Your task to perform on an android device: open a new tab in the chrome app Image 0: 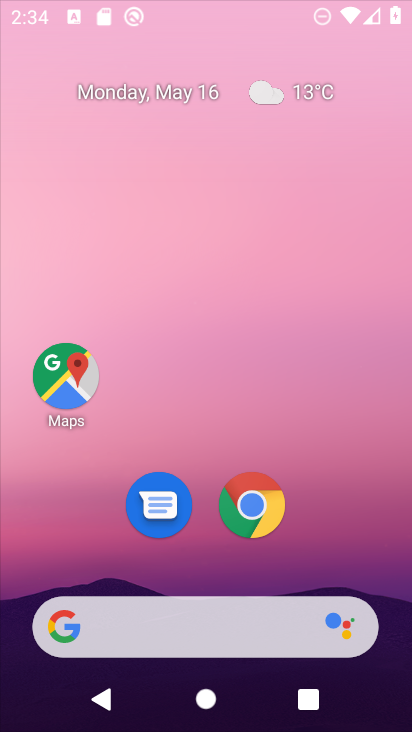
Step 0: drag from (305, 568) to (323, 165)
Your task to perform on an android device: open a new tab in the chrome app Image 1: 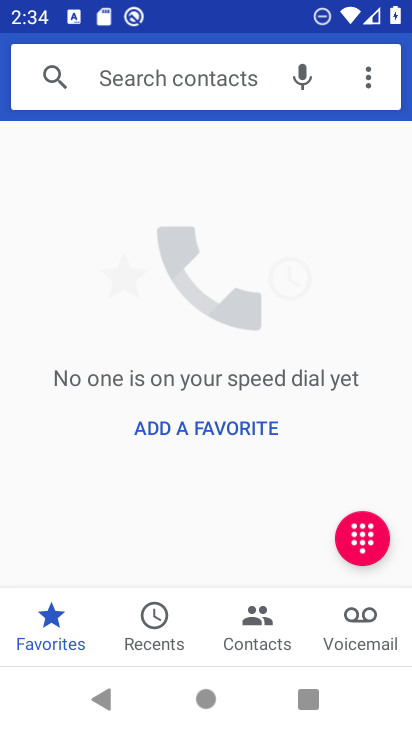
Step 1: press home button
Your task to perform on an android device: open a new tab in the chrome app Image 2: 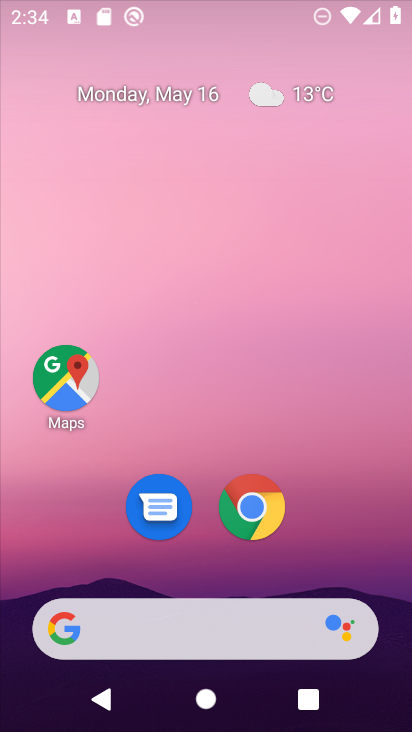
Step 2: drag from (242, 565) to (230, 142)
Your task to perform on an android device: open a new tab in the chrome app Image 3: 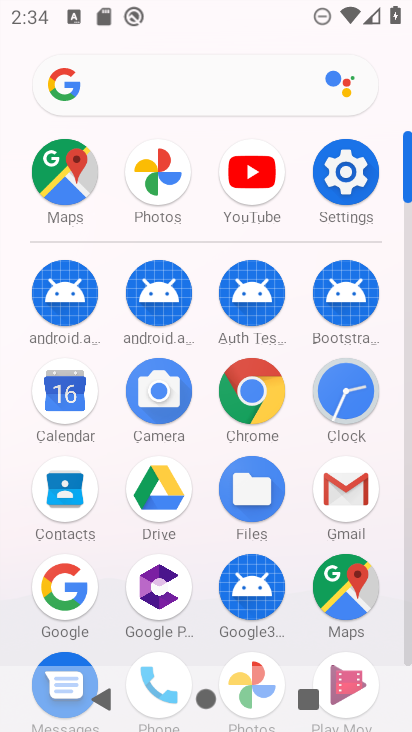
Step 3: click (261, 408)
Your task to perform on an android device: open a new tab in the chrome app Image 4: 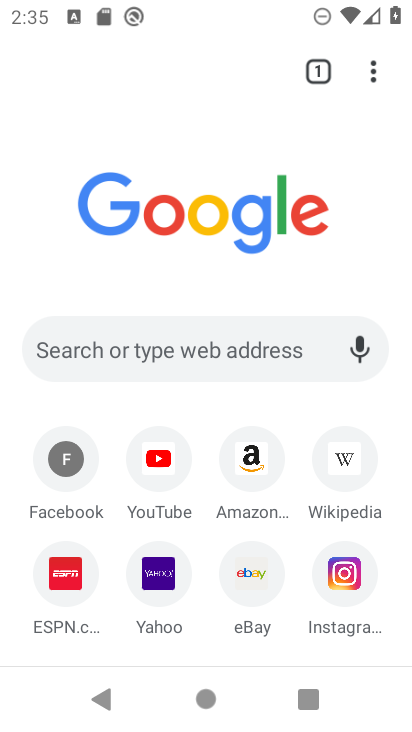
Step 4: click (314, 61)
Your task to perform on an android device: open a new tab in the chrome app Image 5: 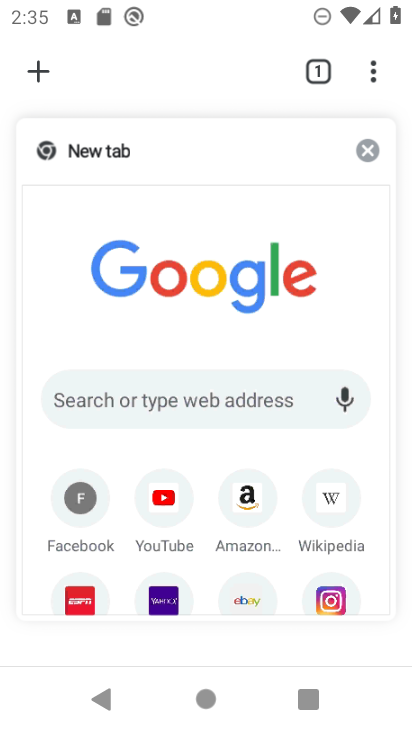
Step 5: click (54, 74)
Your task to perform on an android device: open a new tab in the chrome app Image 6: 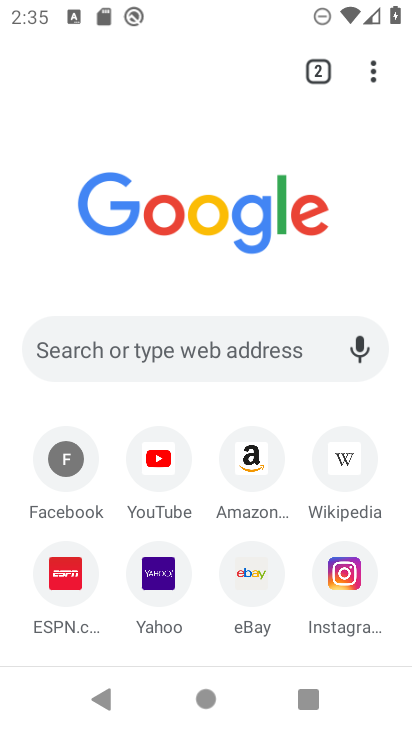
Step 6: task complete